Your task to perform on an android device: turn off translation in the chrome app Image 0: 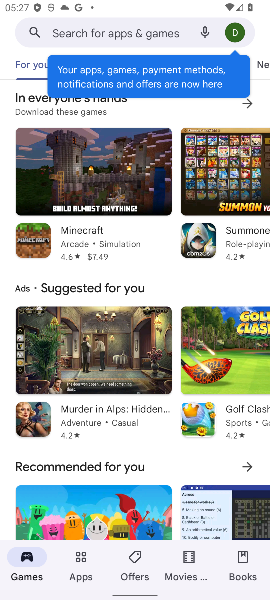
Step 0: type ""
Your task to perform on an android device: turn off translation in the chrome app Image 1: 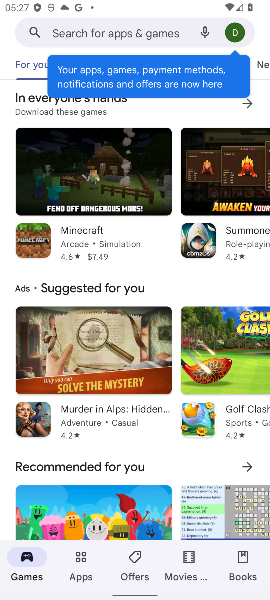
Step 1: press home button
Your task to perform on an android device: turn off translation in the chrome app Image 2: 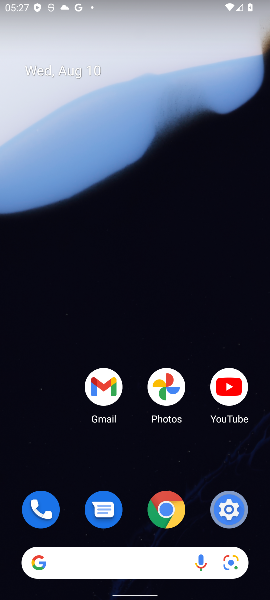
Step 2: drag from (149, 469) to (172, 50)
Your task to perform on an android device: turn off translation in the chrome app Image 3: 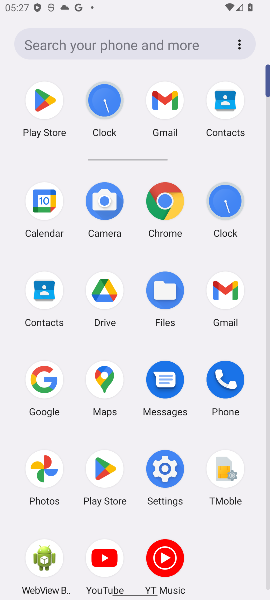
Step 3: click (162, 208)
Your task to perform on an android device: turn off translation in the chrome app Image 4: 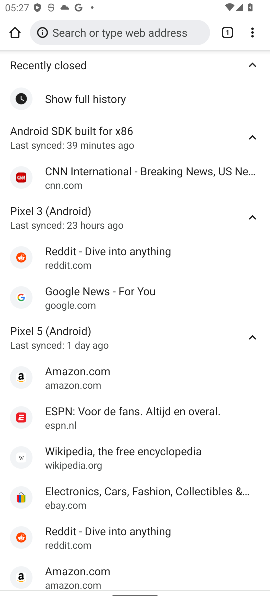
Step 4: click (254, 34)
Your task to perform on an android device: turn off translation in the chrome app Image 5: 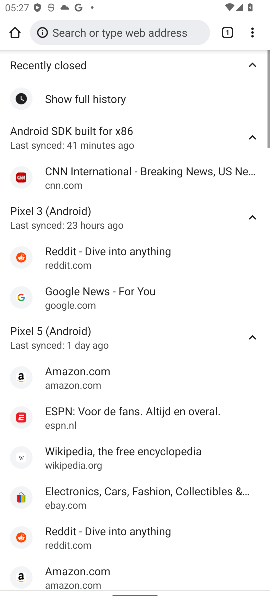
Step 5: drag from (254, 34) to (151, 286)
Your task to perform on an android device: turn off translation in the chrome app Image 6: 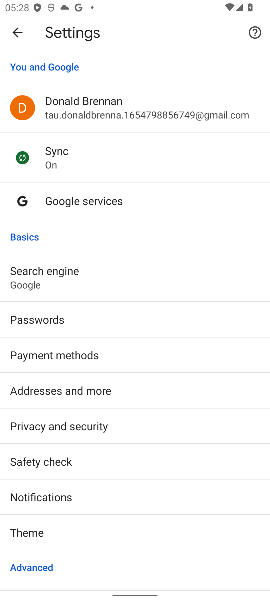
Step 6: drag from (108, 462) to (138, 93)
Your task to perform on an android device: turn off translation in the chrome app Image 7: 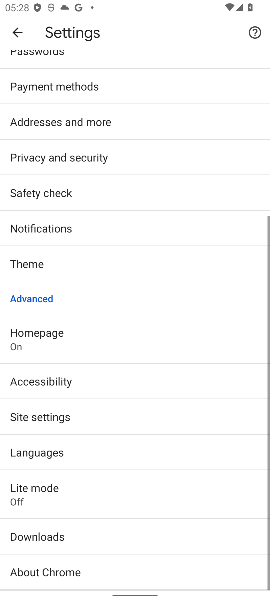
Step 7: click (29, 452)
Your task to perform on an android device: turn off translation in the chrome app Image 8: 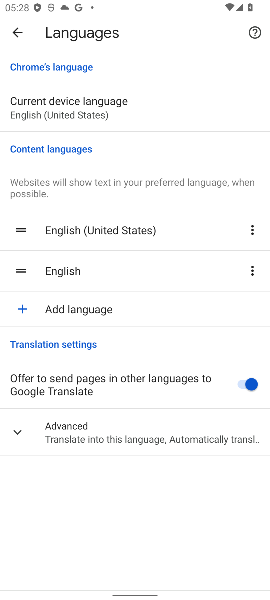
Step 8: click (246, 391)
Your task to perform on an android device: turn off translation in the chrome app Image 9: 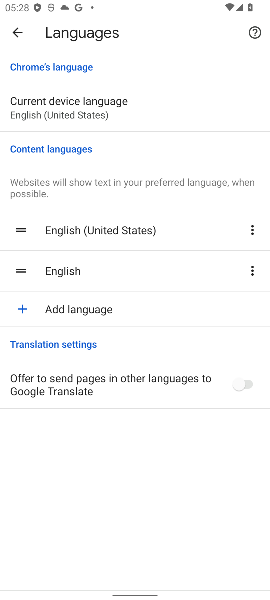
Step 9: task complete